Your task to perform on an android device: check battery use Image 0: 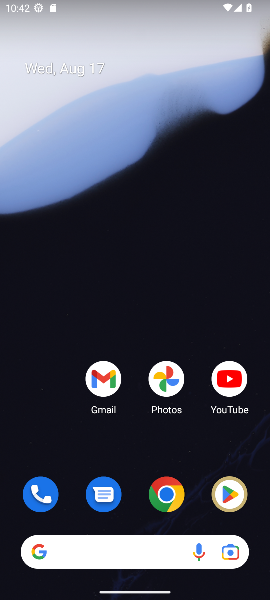
Step 0: drag from (110, 450) to (40, 4)
Your task to perform on an android device: check battery use Image 1: 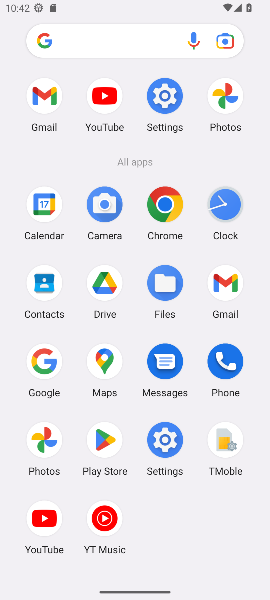
Step 1: click (168, 454)
Your task to perform on an android device: check battery use Image 2: 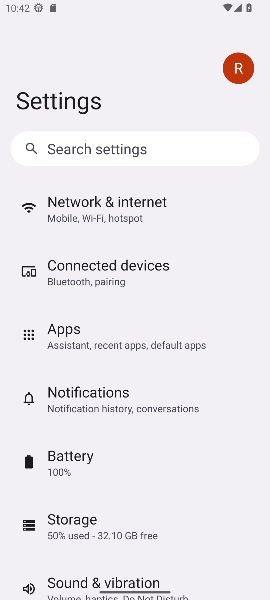
Step 2: click (80, 459)
Your task to perform on an android device: check battery use Image 3: 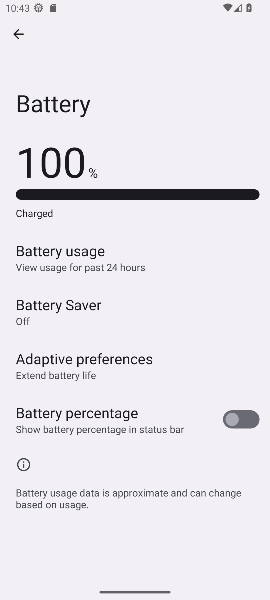
Step 3: task complete